Your task to perform on an android device: Search for "razer naga" on ebay, select the first entry, and add it to the cart. Image 0: 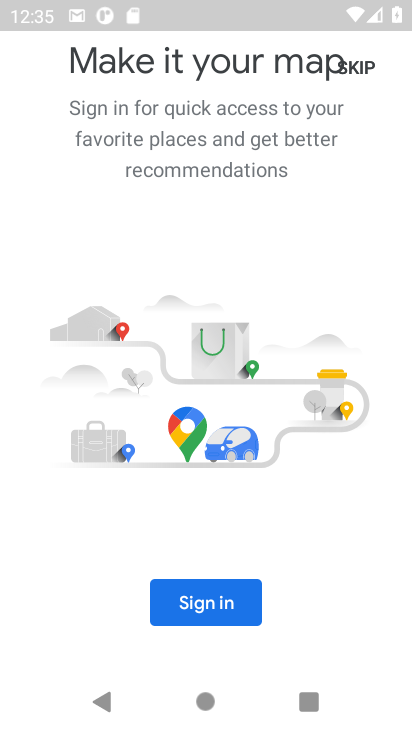
Step 0: press home button
Your task to perform on an android device: Search for "razer naga" on ebay, select the first entry, and add it to the cart. Image 1: 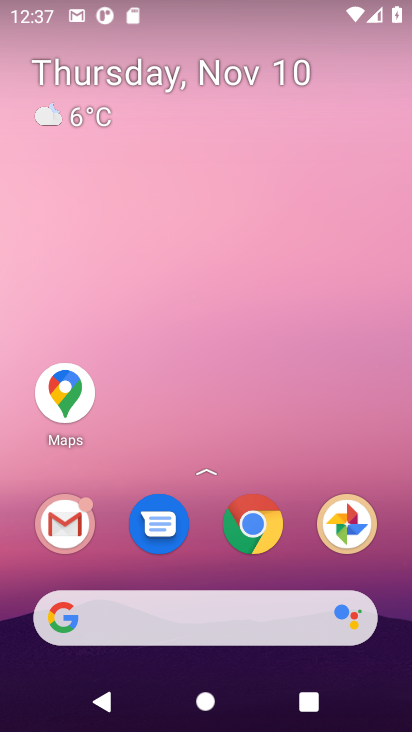
Step 1: task complete